Your task to perform on an android device: toggle location history Image 0: 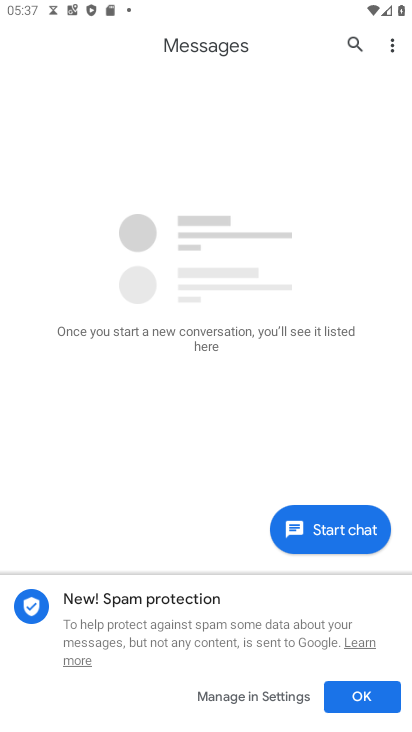
Step 0: press home button
Your task to perform on an android device: toggle location history Image 1: 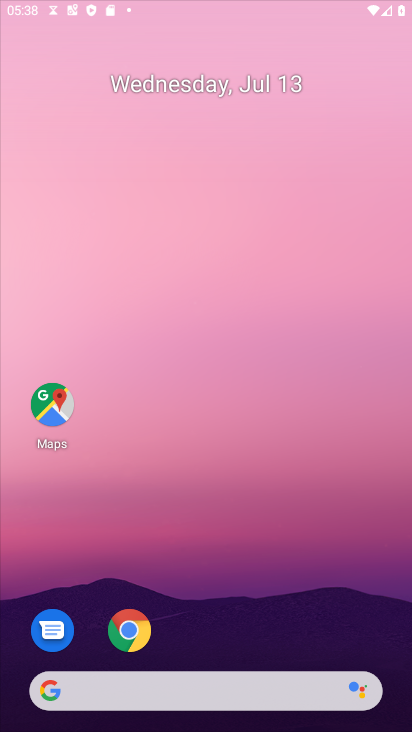
Step 1: drag from (262, 683) to (235, 127)
Your task to perform on an android device: toggle location history Image 2: 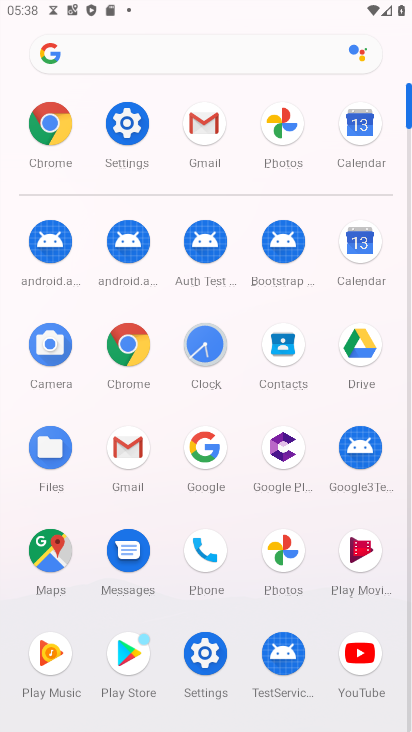
Step 2: click (130, 114)
Your task to perform on an android device: toggle location history Image 3: 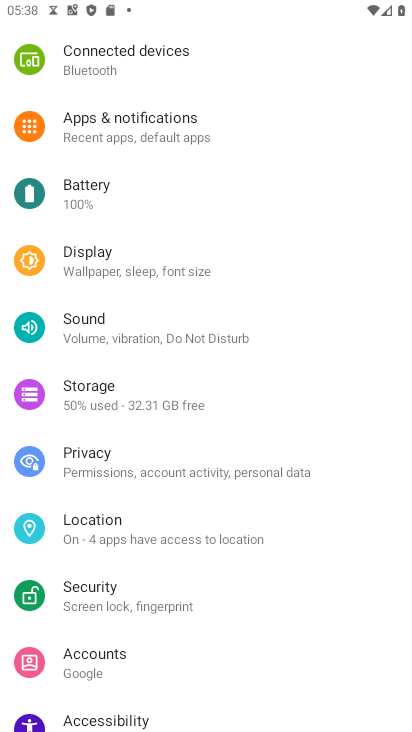
Step 3: click (109, 519)
Your task to perform on an android device: toggle location history Image 4: 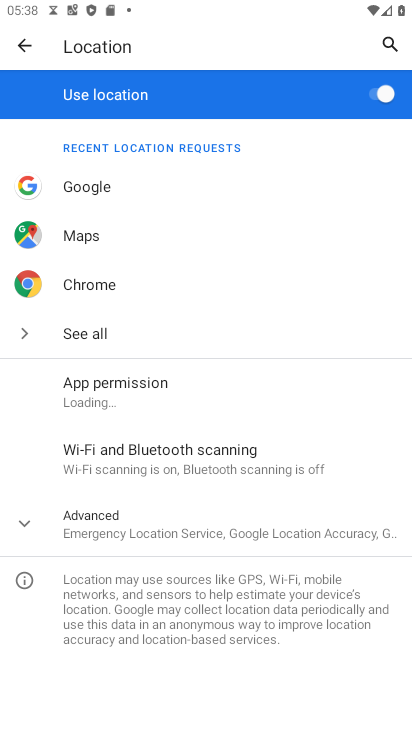
Step 4: click (133, 513)
Your task to perform on an android device: toggle location history Image 5: 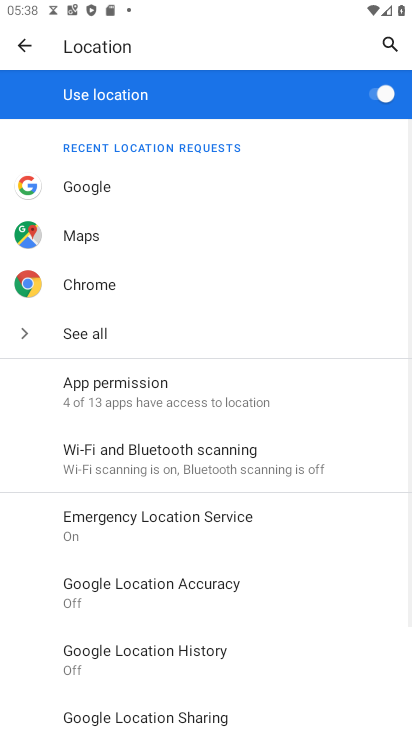
Step 5: click (207, 646)
Your task to perform on an android device: toggle location history Image 6: 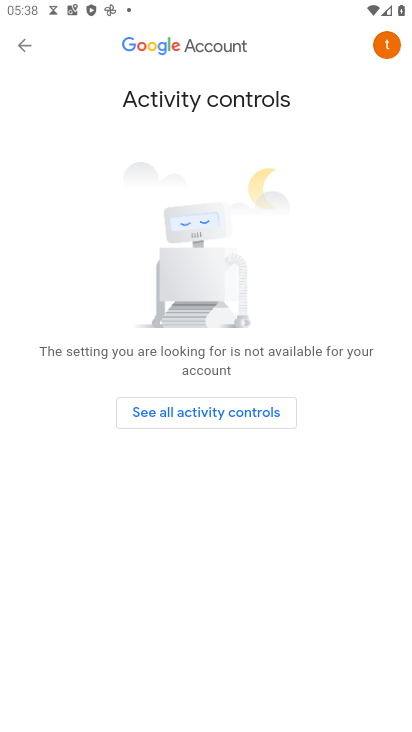
Step 6: click (238, 412)
Your task to perform on an android device: toggle location history Image 7: 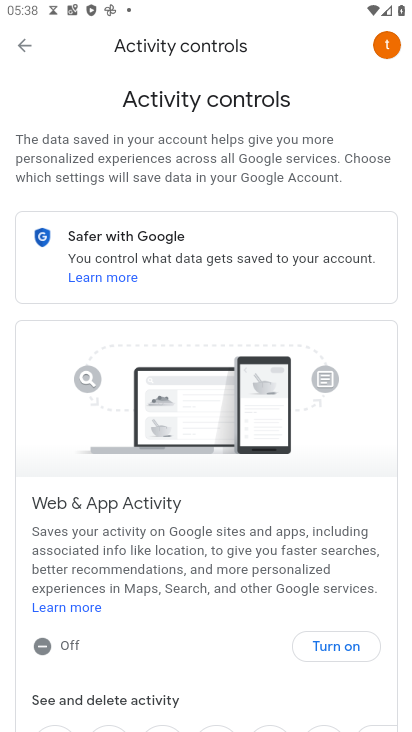
Step 7: click (348, 641)
Your task to perform on an android device: toggle location history Image 8: 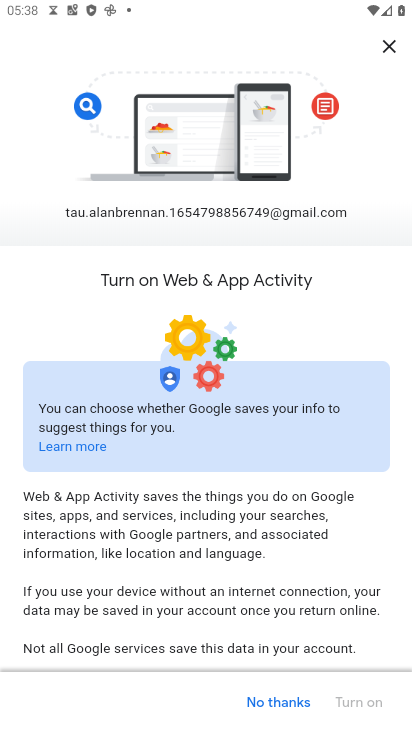
Step 8: drag from (312, 650) to (308, 155)
Your task to perform on an android device: toggle location history Image 9: 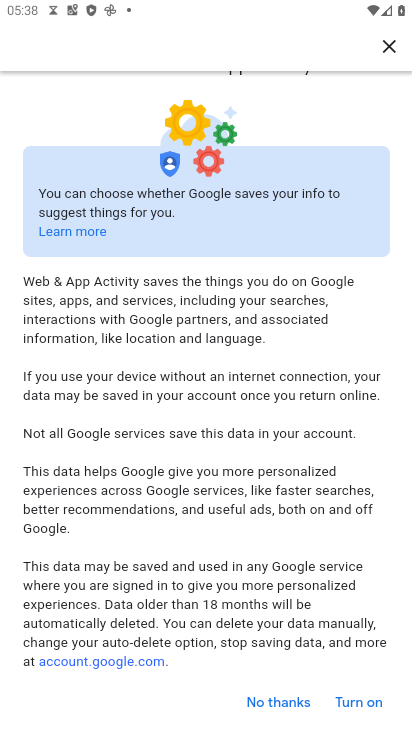
Step 9: click (365, 700)
Your task to perform on an android device: toggle location history Image 10: 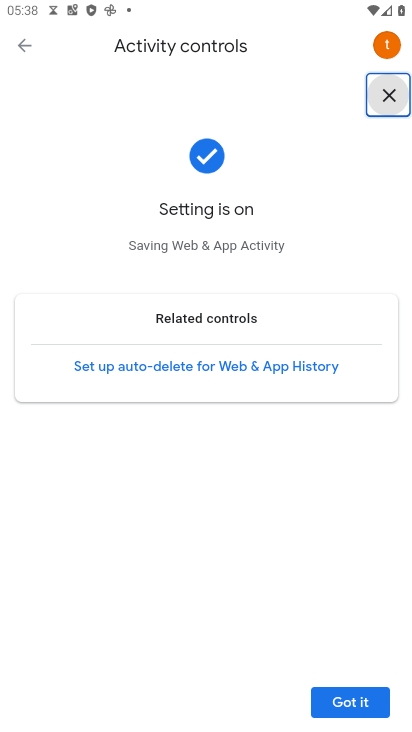
Step 10: task complete